Your task to perform on an android device: check android version Image 0: 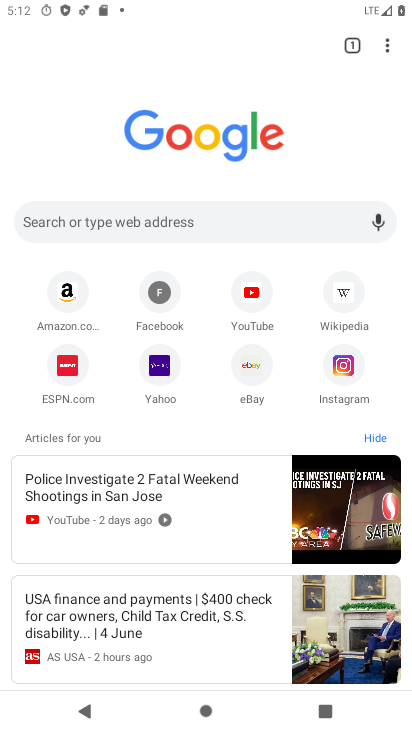
Step 0: press home button
Your task to perform on an android device: check android version Image 1: 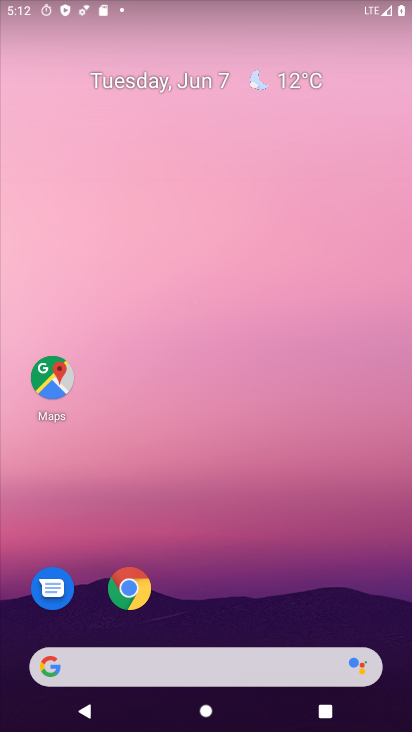
Step 1: drag from (189, 603) to (211, 72)
Your task to perform on an android device: check android version Image 2: 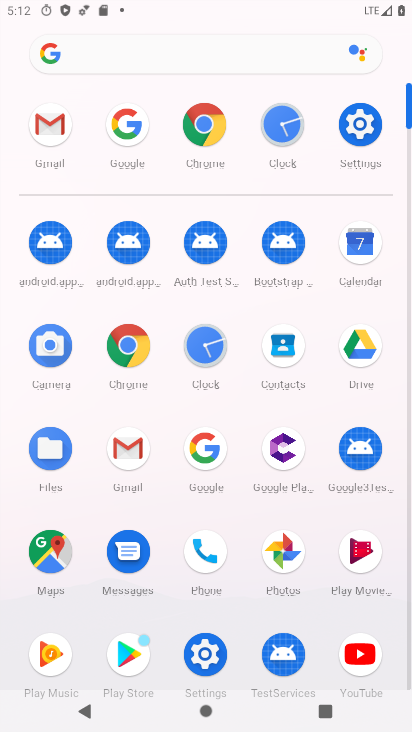
Step 2: click (355, 119)
Your task to perform on an android device: check android version Image 3: 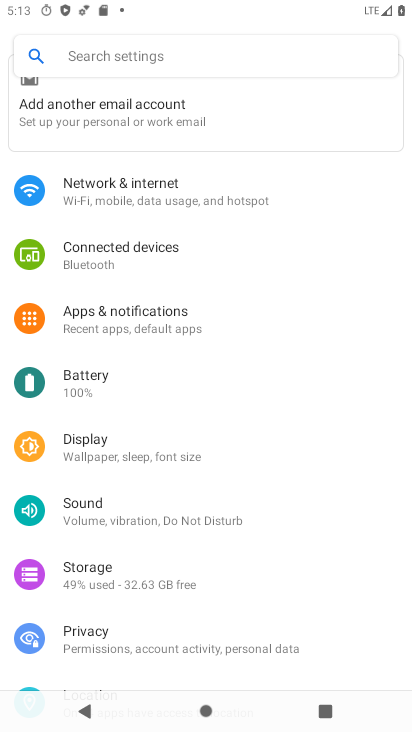
Step 3: drag from (121, 598) to (125, 184)
Your task to perform on an android device: check android version Image 4: 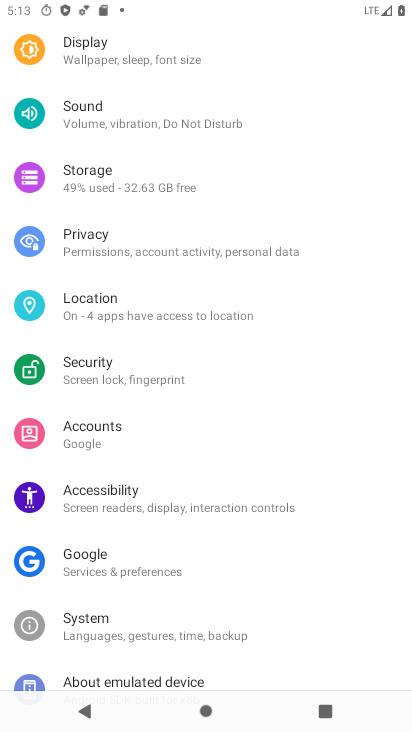
Step 4: drag from (114, 651) to (153, 254)
Your task to perform on an android device: check android version Image 5: 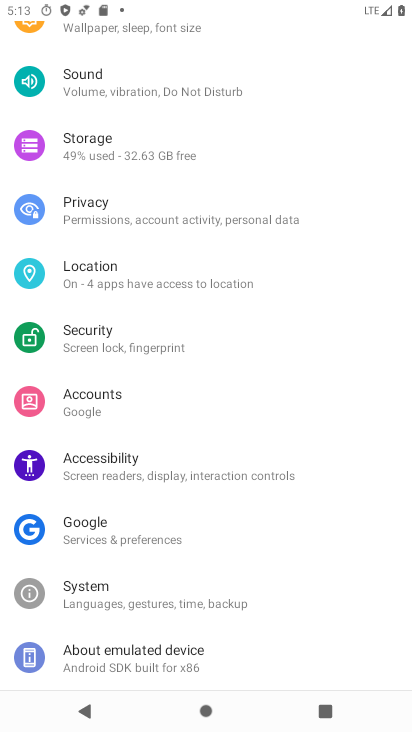
Step 5: click (84, 676)
Your task to perform on an android device: check android version Image 6: 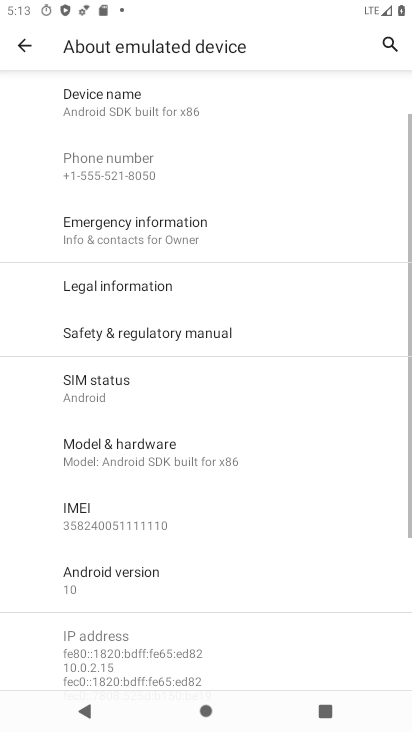
Step 6: drag from (171, 636) to (184, 268)
Your task to perform on an android device: check android version Image 7: 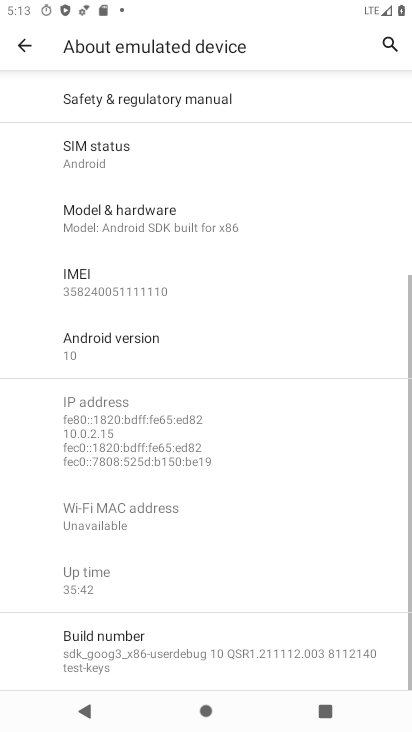
Step 7: click (199, 359)
Your task to perform on an android device: check android version Image 8: 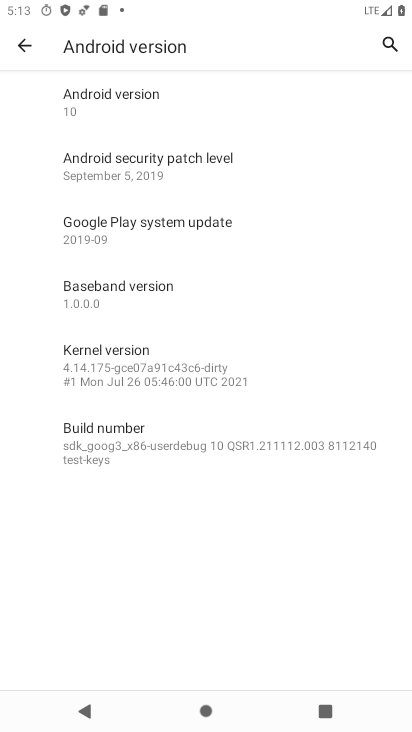
Step 8: task complete